Your task to perform on an android device: refresh tabs in the chrome app Image 0: 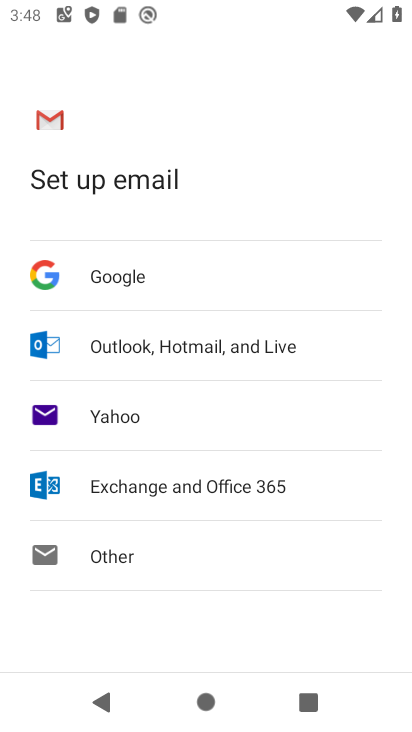
Step 0: press home button
Your task to perform on an android device: refresh tabs in the chrome app Image 1: 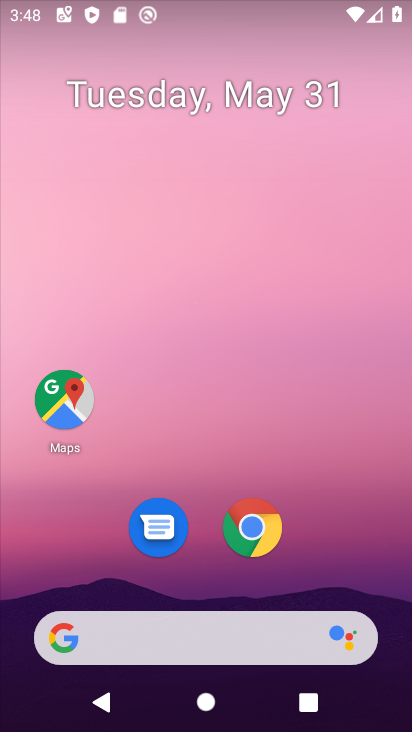
Step 1: click (222, 552)
Your task to perform on an android device: refresh tabs in the chrome app Image 2: 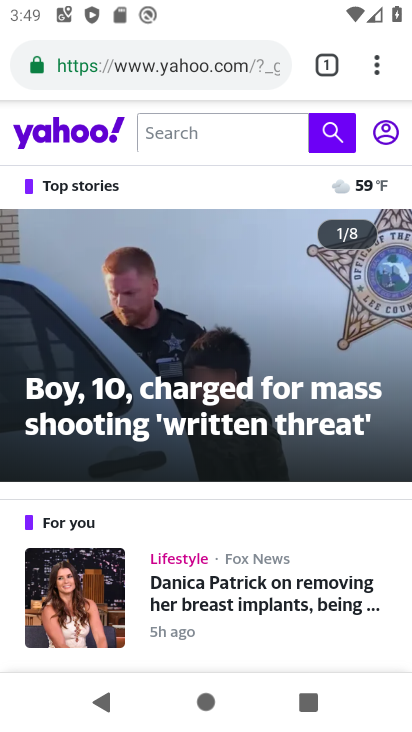
Step 2: click (376, 69)
Your task to perform on an android device: refresh tabs in the chrome app Image 3: 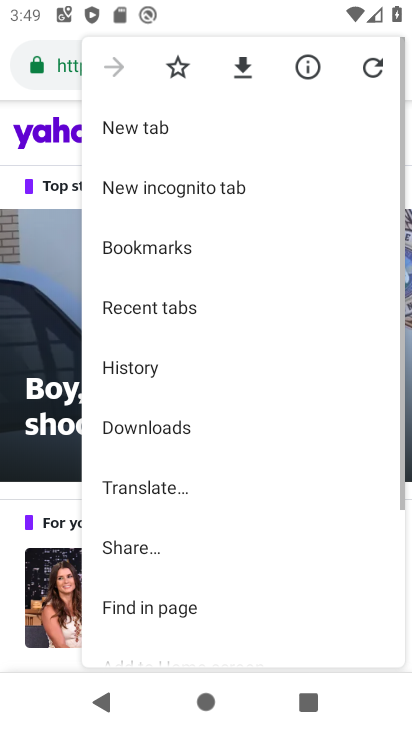
Step 3: click (372, 67)
Your task to perform on an android device: refresh tabs in the chrome app Image 4: 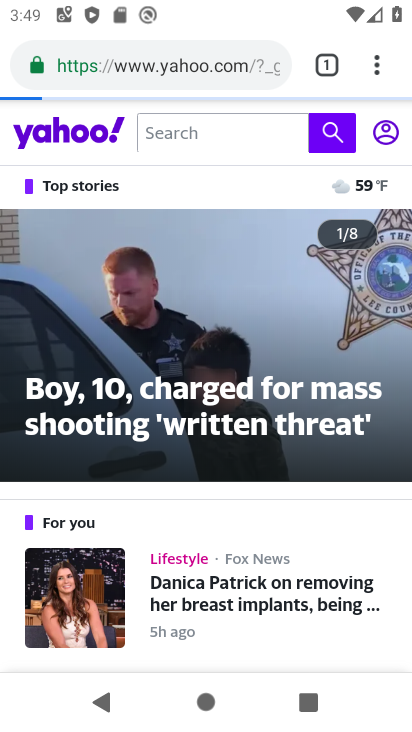
Step 4: task complete